Your task to perform on an android device: Open Maps and search for coffee Image 0: 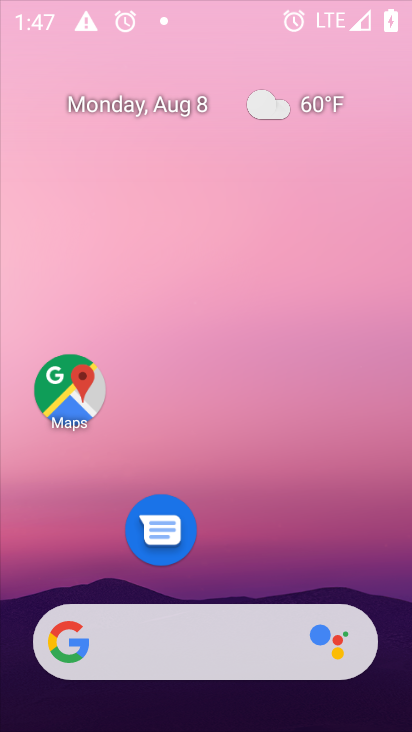
Step 0: click (220, 116)
Your task to perform on an android device: Open Maps and search for coffee Image 1: 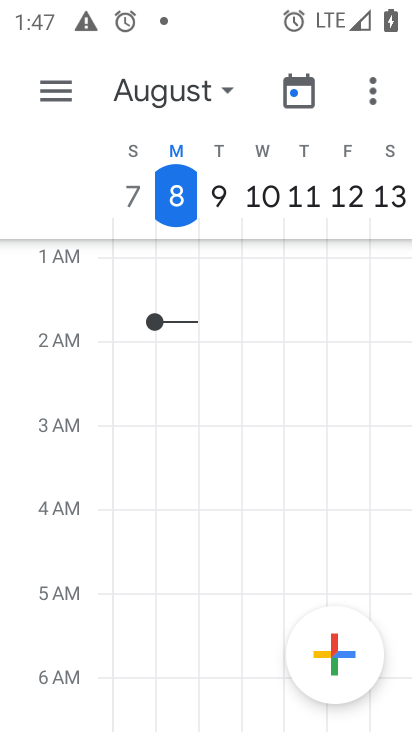
Step 1: press home button
Your task to perform on an android device: Open Maps and search for coffee Image 2: 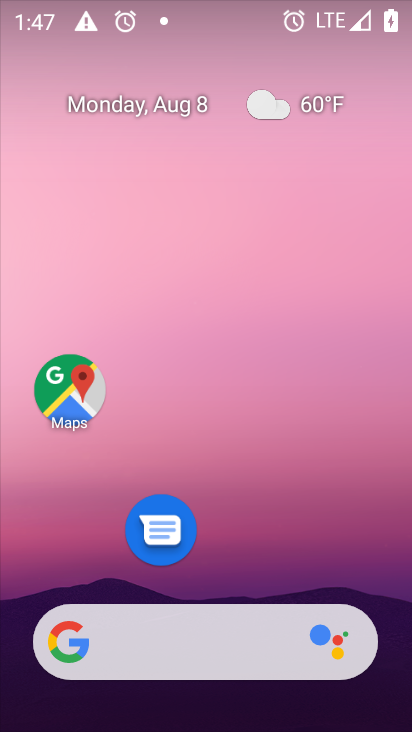
Step 2: drag from (236, 592) to (236, 123)
Your task to perform on an android device: Open Maps and search for coffee Image 3: 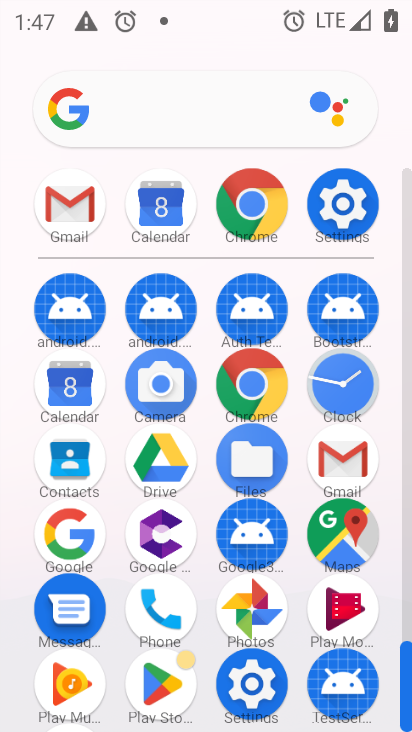
Step 3: click (338, 528)
Your task to perform on an android device: Open Maps and search for coffee Image 4: 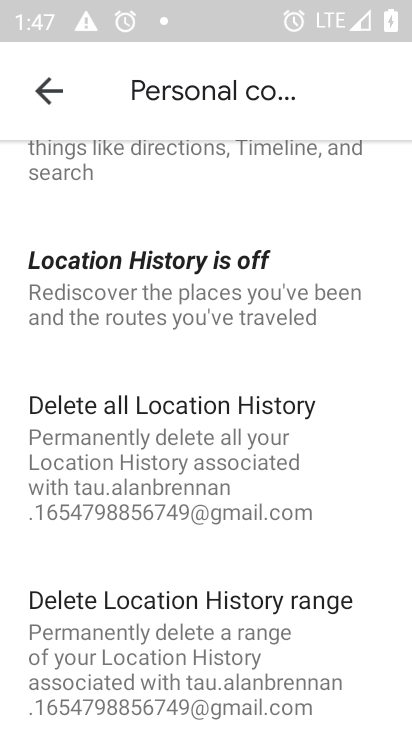
Step 4: click (48, 91)
Your task to perform on an android device: Open Maps and search for coffee Image 5: 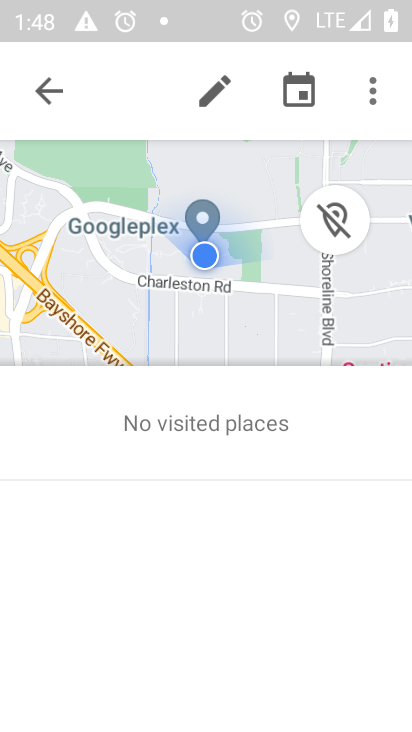
Step 5: click (49, 95)
Your task to perform on an android device: Open Maps and search for coffee Image 6: 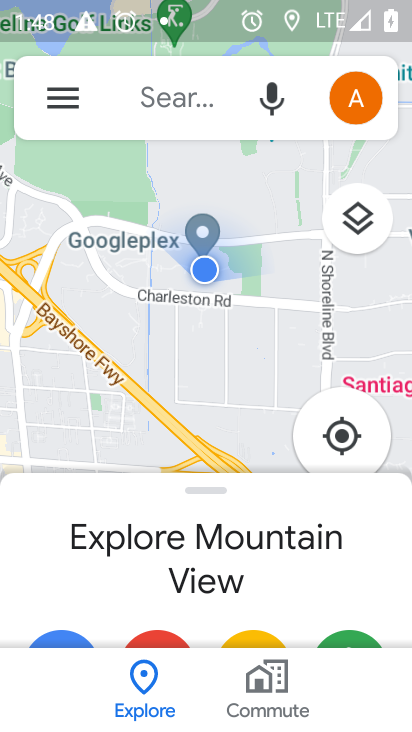
Step 6: click (182, 98)
Your task to perform on an android device: Open Maps and search for coffee Image 7: 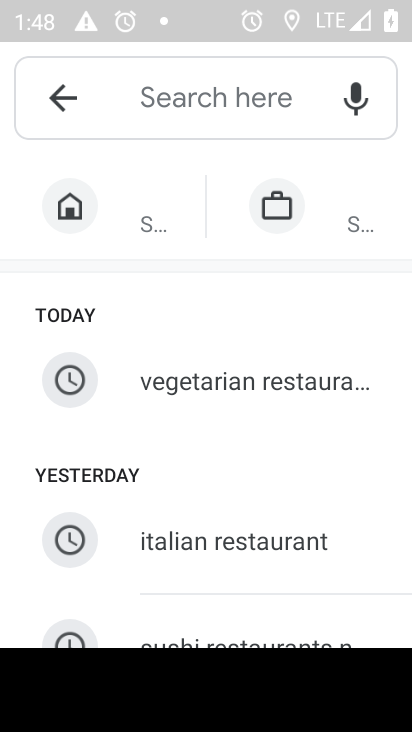
Step 7: type "coffee"
Your task to perform on an android device: Open Maps and search for coffee Image 8: 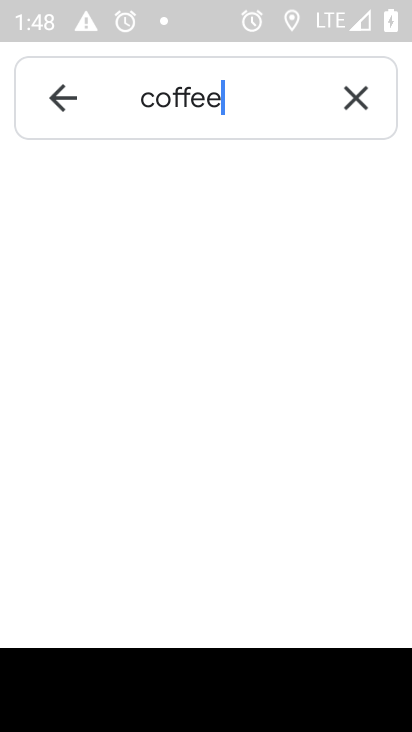
Step 8: type ""
Your task to perform on an android device: Open Maps and search for coffee Image 9: 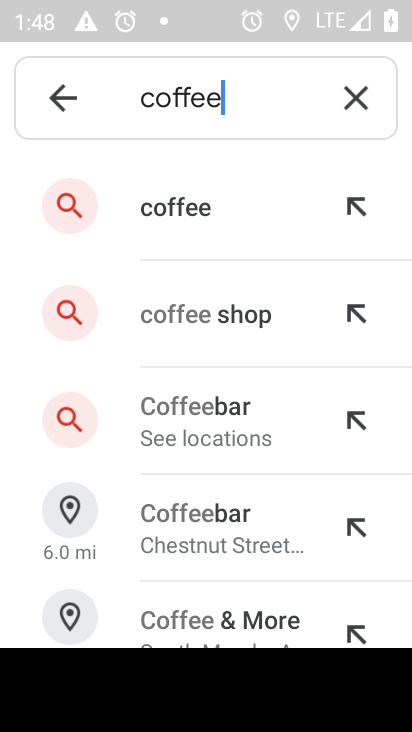
Step 9: click (168, 221)
Your task to perform on an android device: Open Maps and search for coffee Image 10: 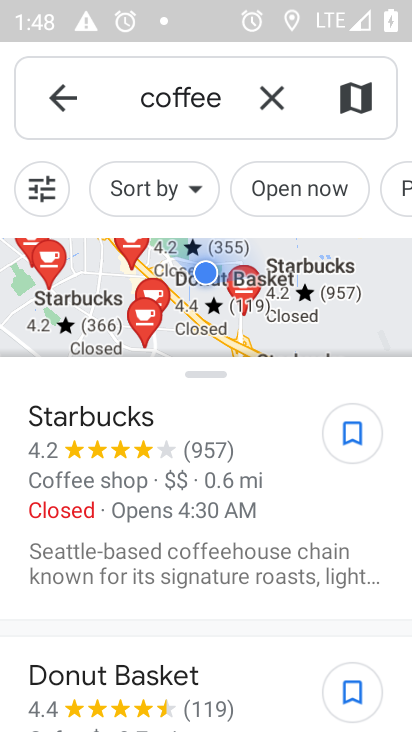
Step 10: task complete